Your task to perform on an android device: check the backup settings in the google photos Image 0: 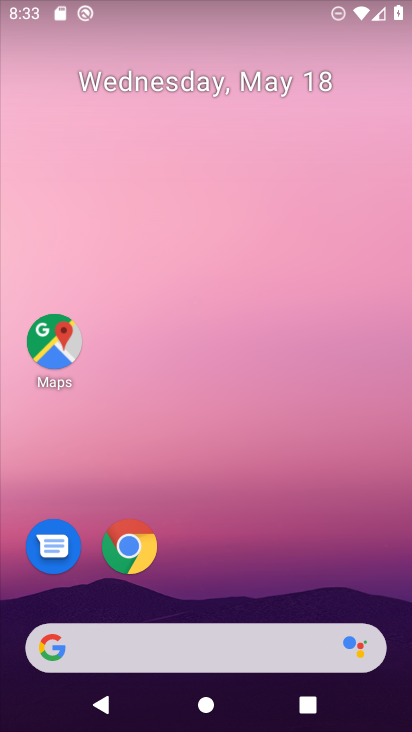
Step 0: drag from (273, 656) to (325, 197)
Your task to perform on an android device: check the backup settings in the google photos Image 1: 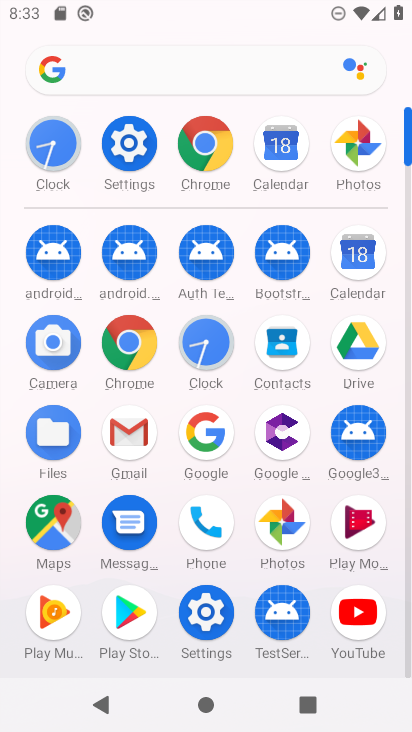
Step 1: click (270, 514)
Your task to perform on an android device: check the backup settings in the google photos Image 2: 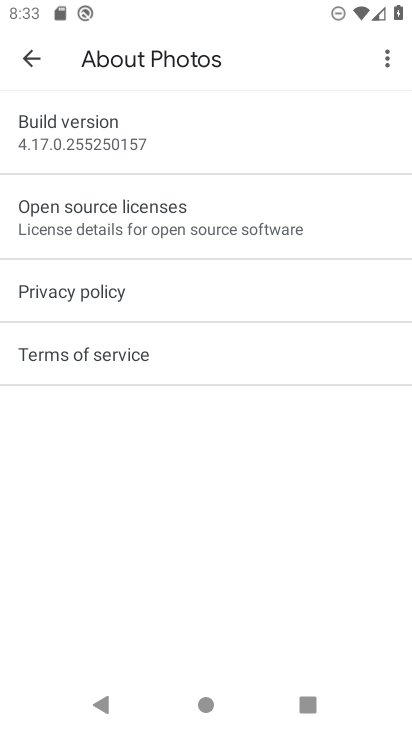
Step 2: click (37, 59)
Your task to perform on an android device: check the backup settings in the google photos Image 3: 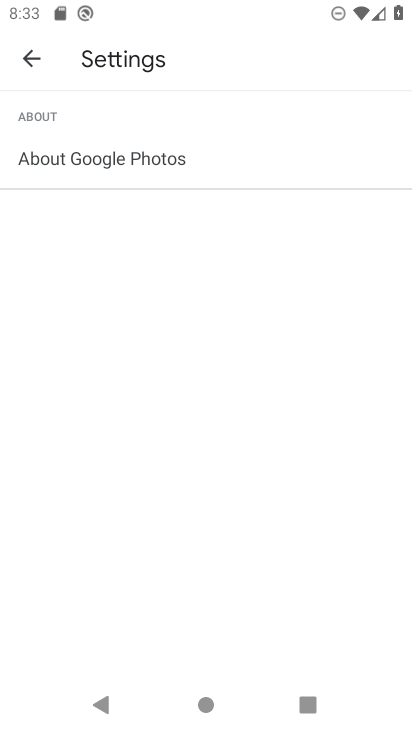
Step 3: click (37, 59)
Your task to perform on an android device: check the backup settings in the google photos Image 4: 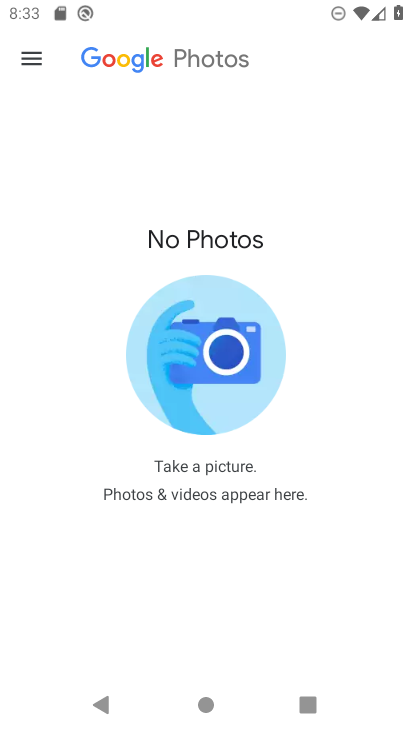
Step 4: click (37, 59)
Your task to perform on an android device: check the backup settings in the google photos Image 5: 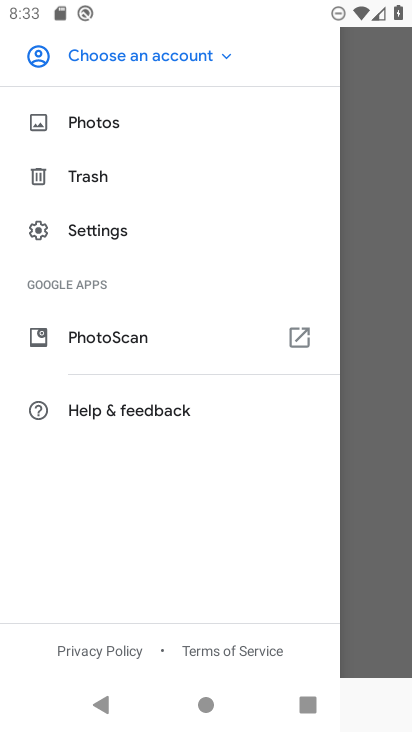
Step 5: click (74, 234)
Your task to perform on an android device: check the backup settings in the google photos Image 6: 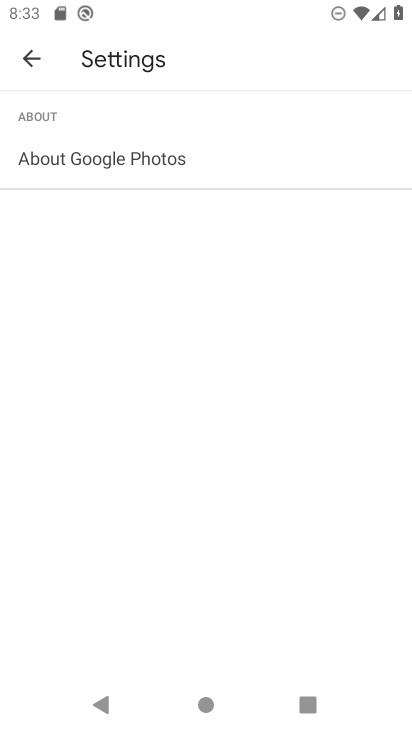
Step 6: click (19, 53)
Your task to perform on an android device: check the backup settings in the google photos Image 7: 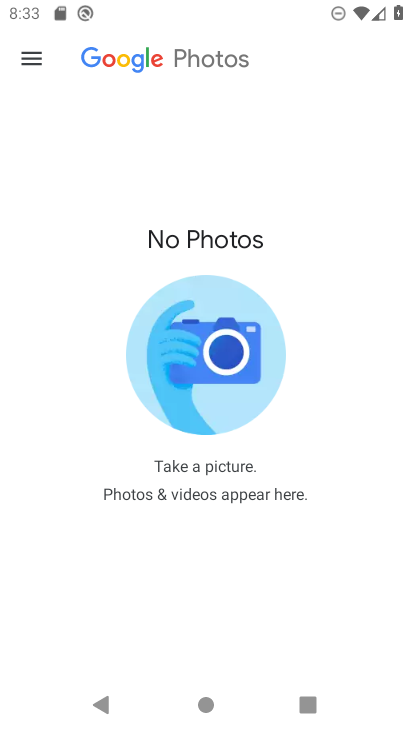
Step 7: click (33, 54)
Your task to perform on an android device: check the backup settings in the google photos Image 8: 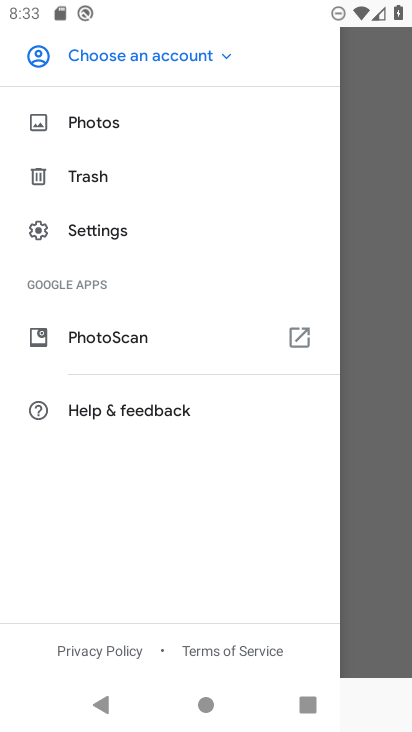
Step 8: click (112, 139)
Your task to perform on an android device: check the backup settings in the google photos Image 9: 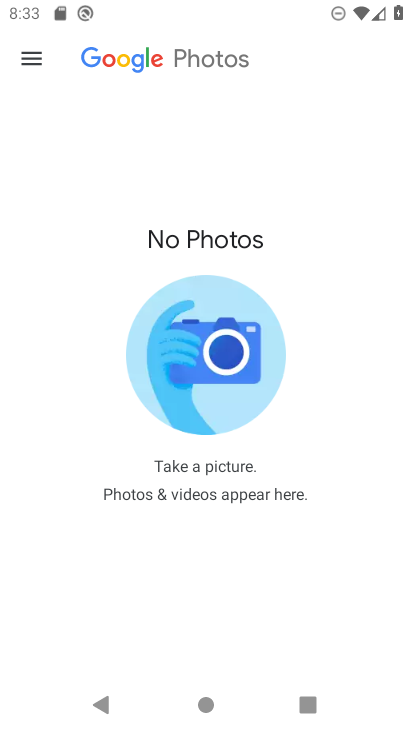
Step 9: click (44, 53)
Your task to perform on an android device: check the backup settings in the google photos Image 10: 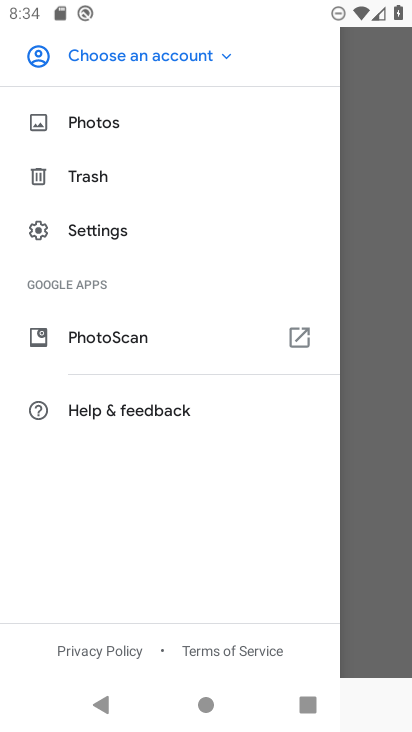
Step 10: click (86, 226)
Your task to perform on an android device: check the backup settings in the google photos Image 11: 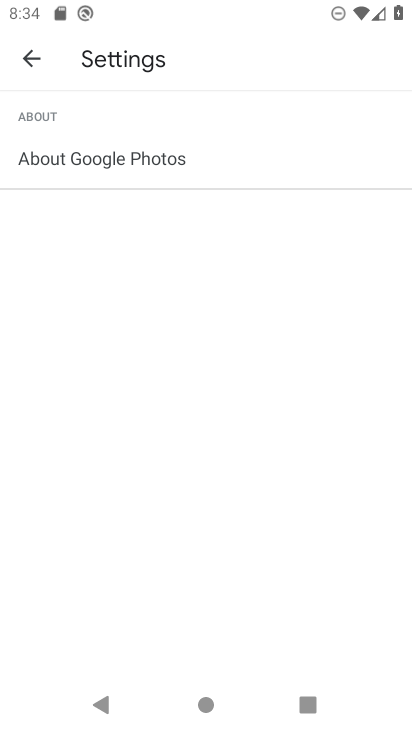
Step 11: click (48, 58)
Your task to perform on an android device: check the backup settings in the google photos Image 12: 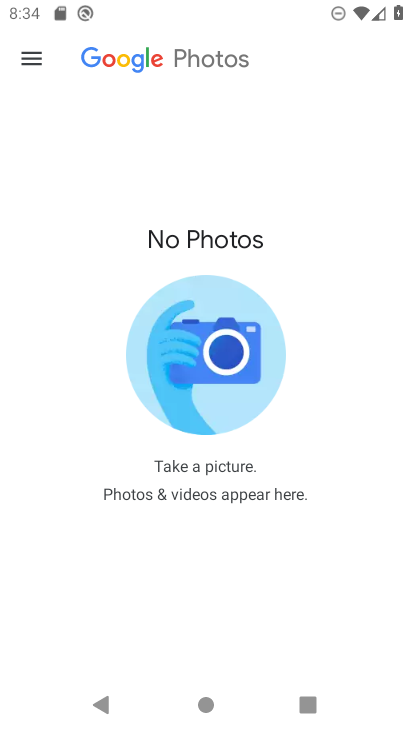
Step 12: click (65, 67)
Your task to perform on an android device: check the backup settings in the google photos Image 13: 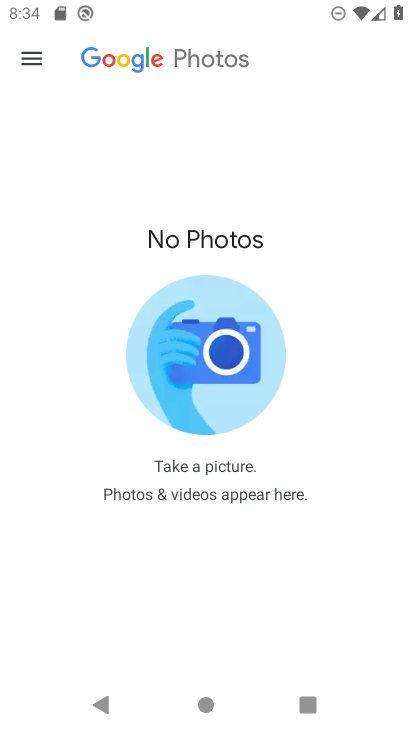
Step 13: click (37, 68)
Your task to perform on an android device: check the backup settings in the google photos Image 14: 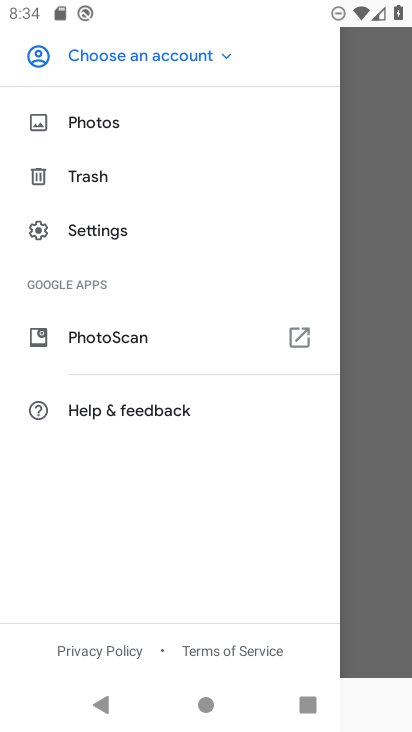
Step 14: click (110, 47)
Your task to perform on an android device: check the backup settings in the google photos Image 15: 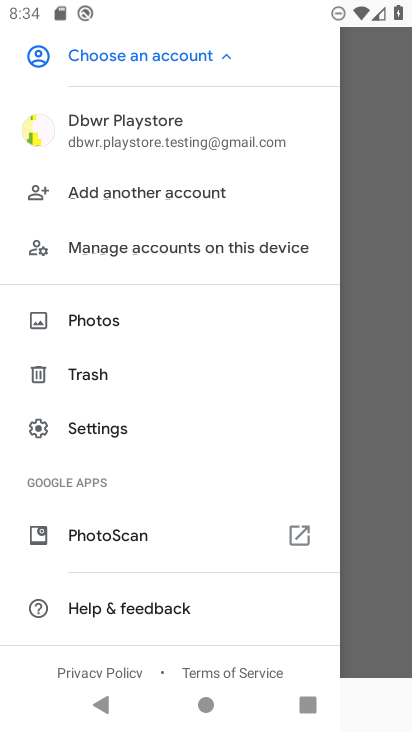
Step 15: click (130, 140)
Your task to perform on an android device: check the backup settings in the google photos Image 16: 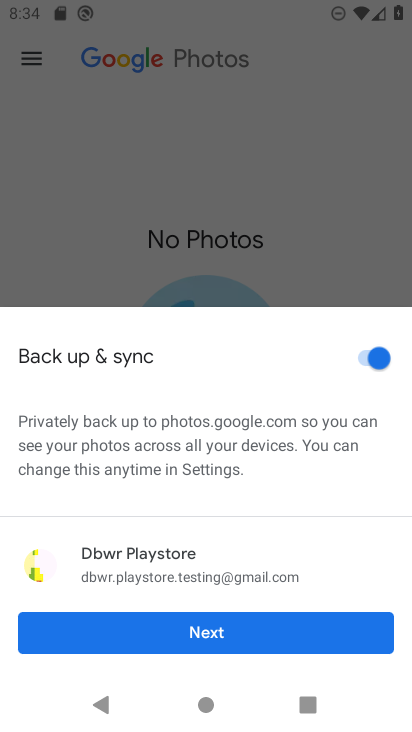
Step 16: click (214, 643)
Your task to perform on an android device: check the backup settings in the google photos Image 17: 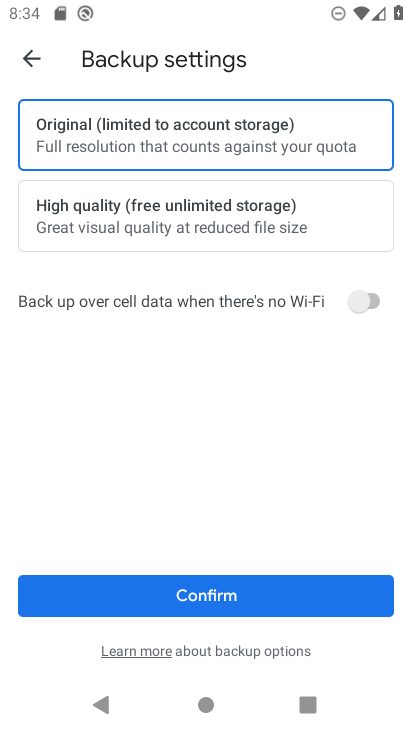
Step 17: click (212, 595)
Your task to perform on an android device: check the backup settings in the google photos Image 18: 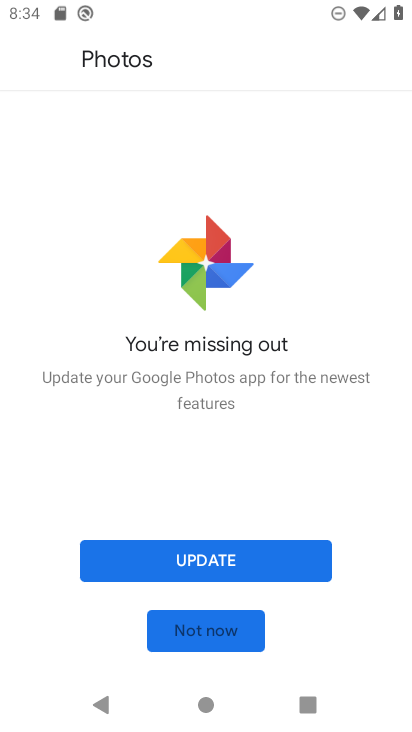
Step 18: click (229, 562)
Your task to perform on an android device: check the backup settings in the google photos Image 19: 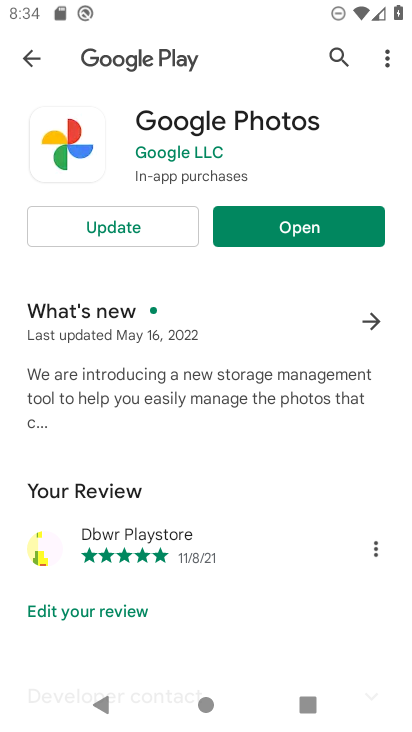
Step 19: click (279, 225)
Your task to perform on an android device: check the backup settings in the google photos Image 20: 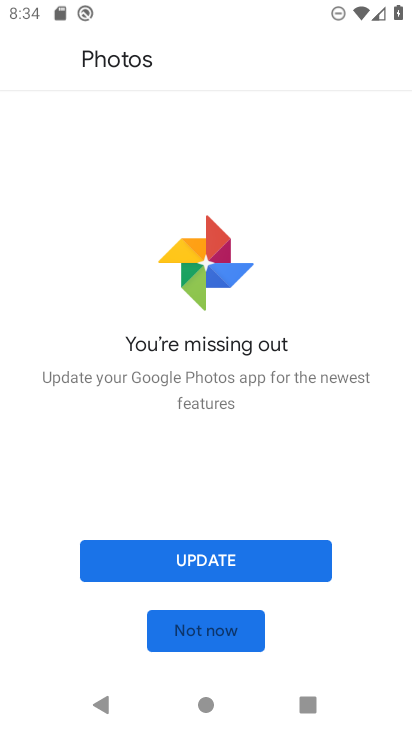
Step 20: click (193, 562)
Your task to perform on an android device: check the backup settings in the google photos Image 21: 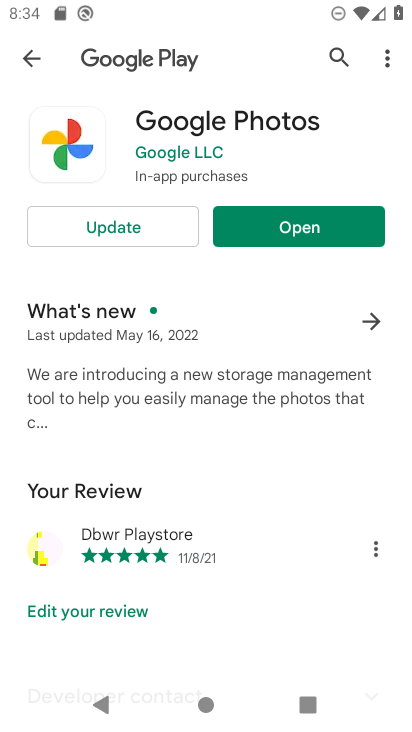
Step 21: click (134, 233)
Your task to perform on an android device: check the backup settings in the google photos Image 22: 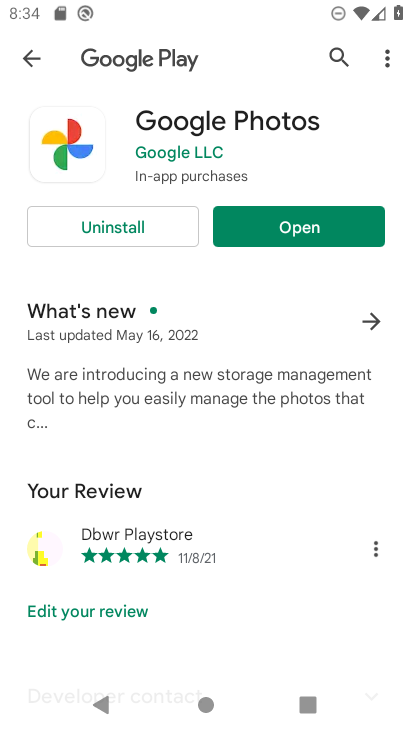
Step 22: click (312, 227)
Your task to perform on an android device: check the backup settings in the google photos Image 23: 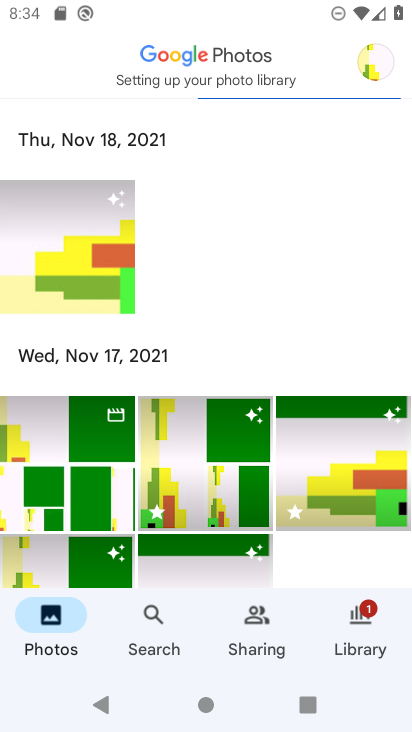
Step 23: click (377, 52)
Your task to perform on an android device: check the backup settings in the google photos Image 24: 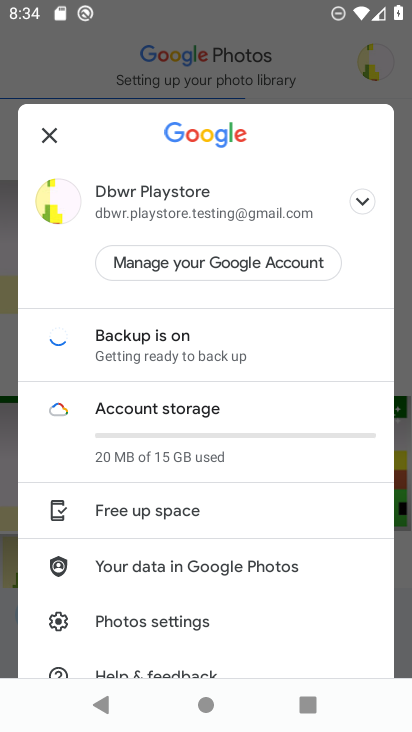
Step 24: click (153, 618)
Your task to perform on an android device: check the backup settings in the google photos Image 25: 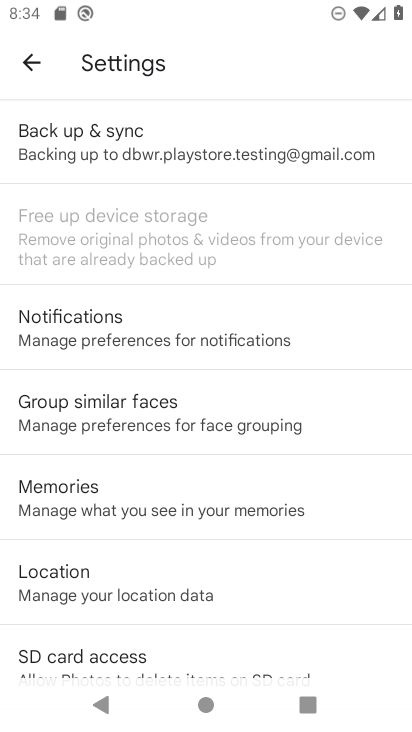
Step 25: click (110, 169)
Your task to perform on an android device: check the backup settings in the google photos Image 26: 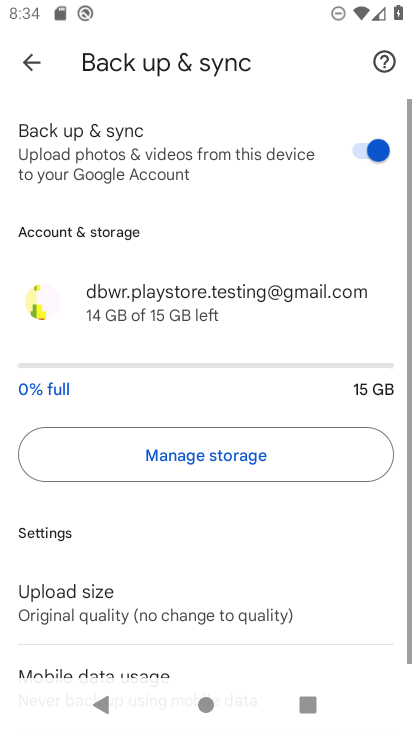
Step 26: task complete